Your task to perform on an android device: open app "DuckDuckGo Privacy Browser" (install if not already installed), go to login, and select forgot password Image 0: 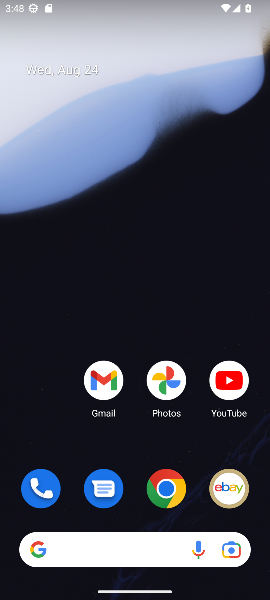
Step 0: drag from (141, 507) to (129, 79)
Your task to perform on an android device: open app "DuckDuckGo Privacy Browser" (install if not already installed), go to login, and select forgot password Image 1: 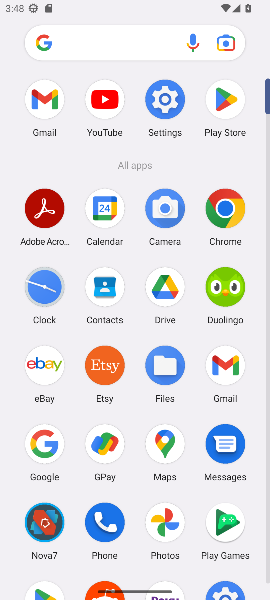
Step 1: click (217, 110)
Your task to perform on an android device: open app "DuckDuckGo Privacy Browser" (install if not already installed), go to login, and select forgot password Image 2: 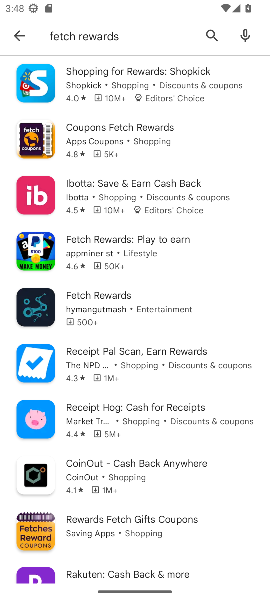
Step 2: click (211, 42)
Your task to perform on an android device: open app "DuckDuckGo Privacy Browser" (install if not already installed), go to login, and select forgot password Image 3: 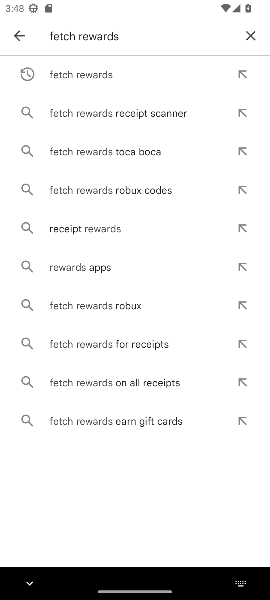
Step 3: click (247, 41)
Your task to perform on an android device: open app "DuckDuckGo Privacy Browser" (install if not already installed), go to login, and select forgot password Image 4: 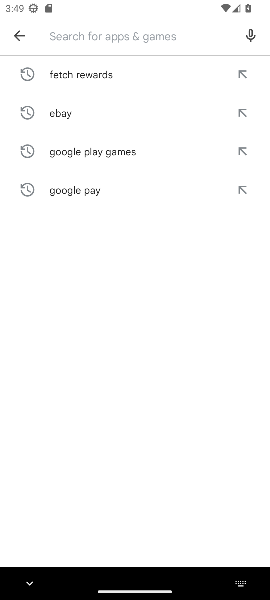
Step 4: type "duck duck go"
Your task to perform on an android device: open app "DuckDuckGo Privacy Browser" (install if not already installed), go to login, and select forgot password Image 5: 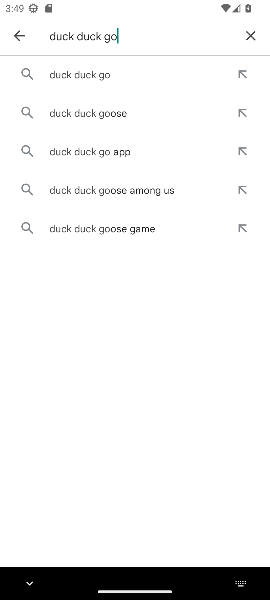
Step 5: click (88, 78)
Your task to perform on an android device: open app "DuckDuckGo Privacy Browser" (install if not already installed), go to login, and select forgot password Image 6: 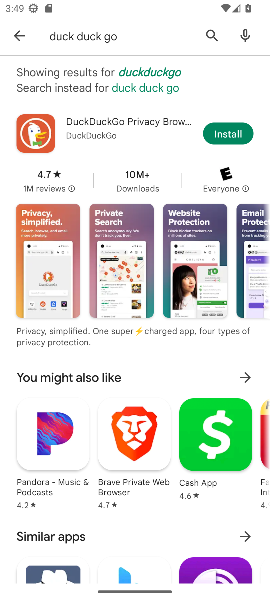
Step 6: click (217, 140)
Your task to perform on an android device: open app "DuckDuckGo Privacy Browser" (install if not already installed), go to login, and select forgot password Image 7: 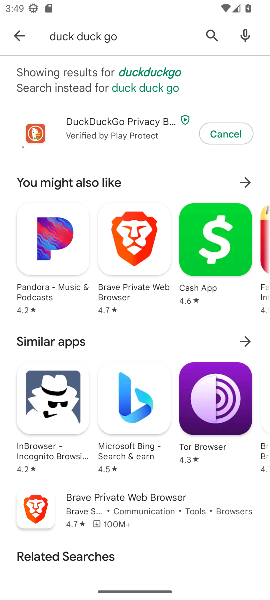
Step 7: task complete